Your task to perform on an android device: open app "Pandora - Music & Podcasts" Image 0: 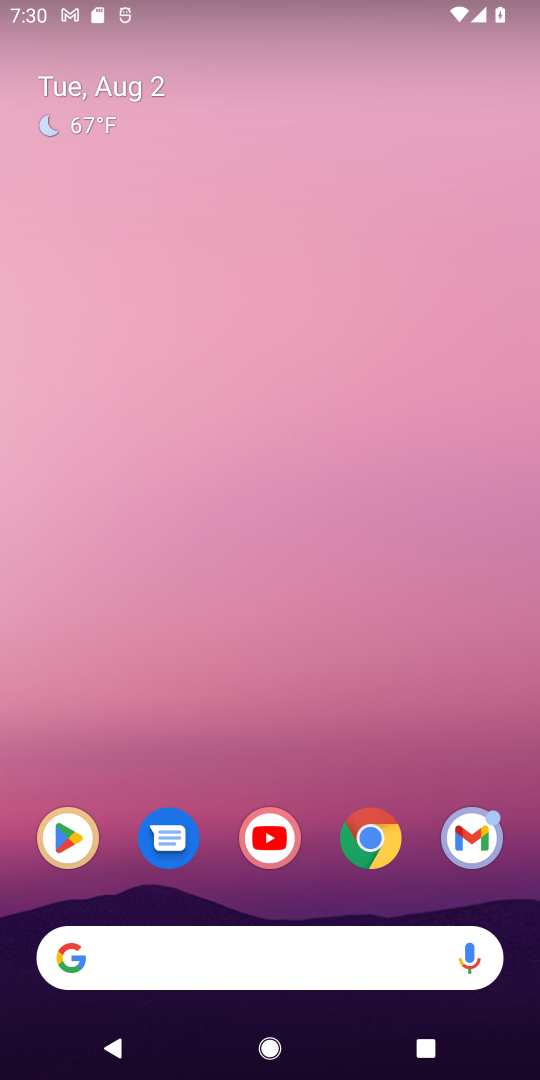
Step 0: click (67, 839)
Your task to perform on an android device: open app "Pandora - Music & Podcasts" Image 1: 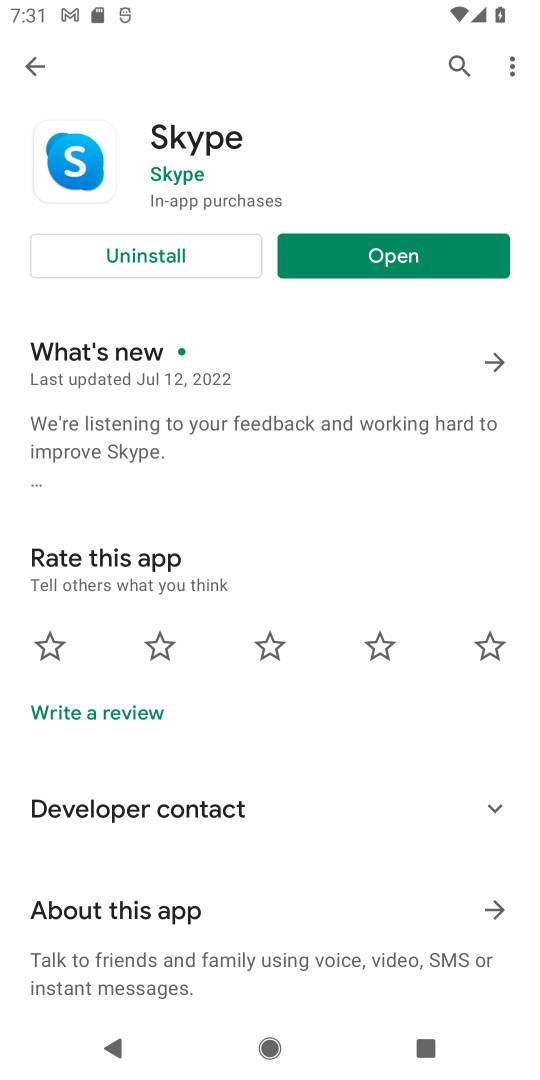
Step 1: click (448, 54)
Your task to perform on an android device: open app "Pandora - Music & Podcasts" Image 2: 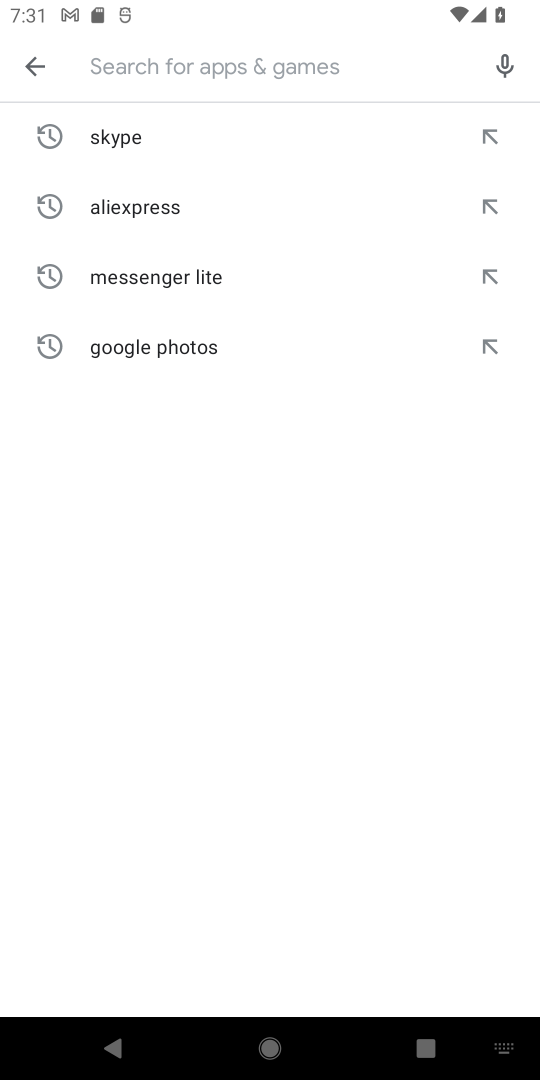
Step 2: type "pandora - music podcasts"
Your task to perform on an android device: open app "Pandora - Music & Podcasts" Image 3: 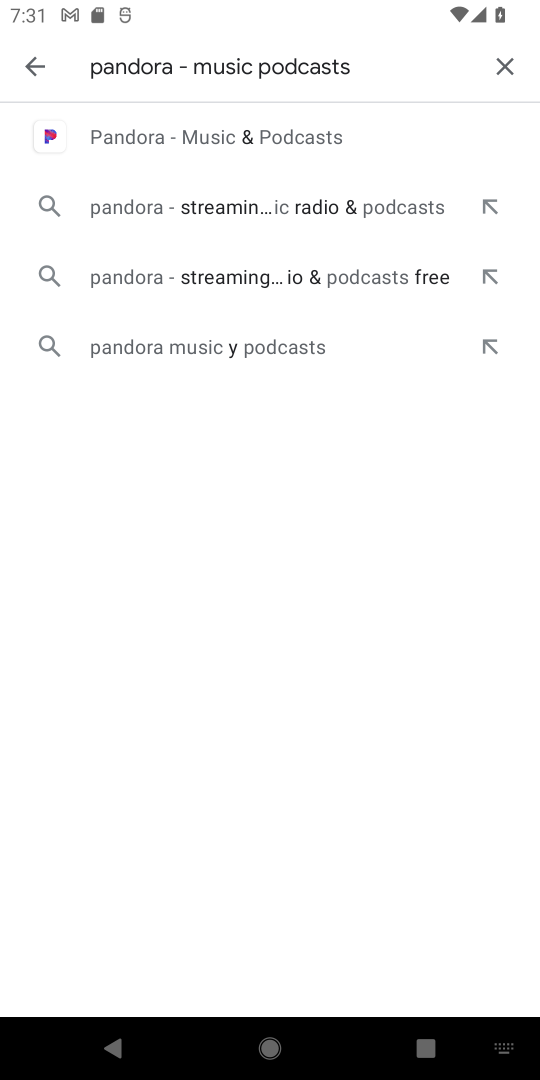
Step 3: click (324, 150)
Your task to perform on an android device: open app "Pandora - Music & Podcasts" Image 4: 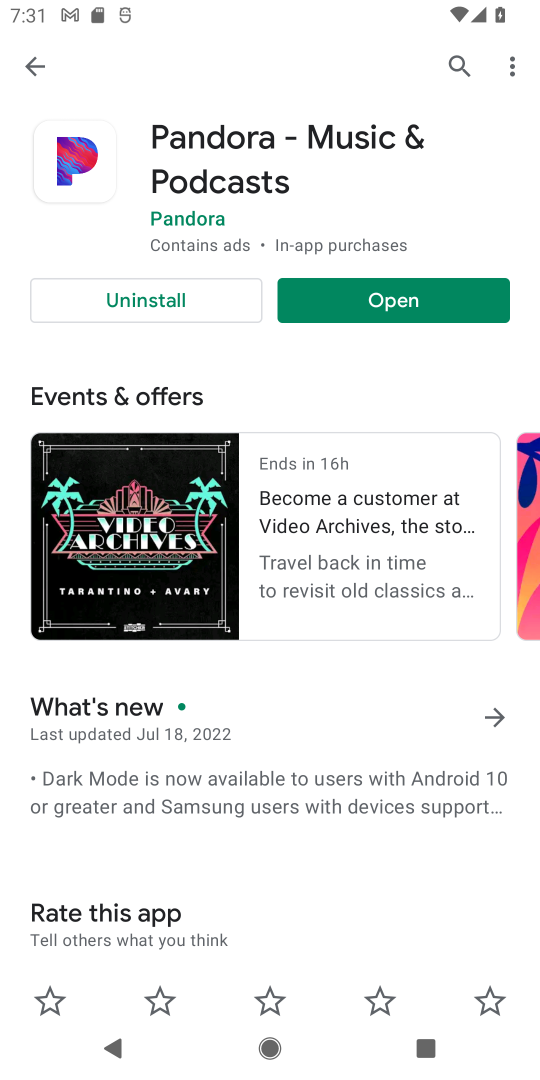
Step 4: click (401, 291)
Your task to perform on an android device: open app "Pandora - Music & Podcasts" Image 5: 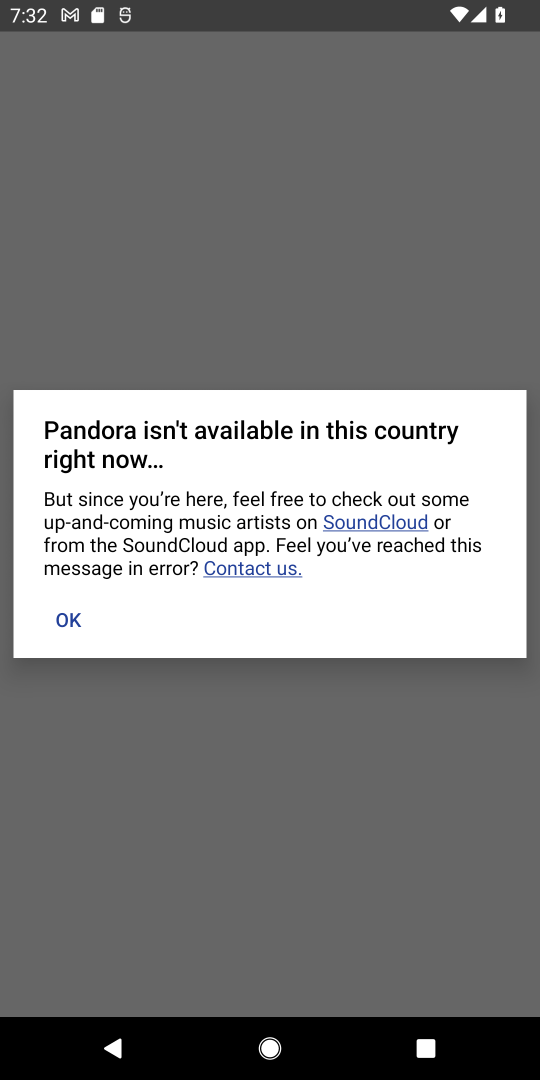
Step 5: task complete